Your task to perform on an android device: snooze an email in the gmail app Image 0: 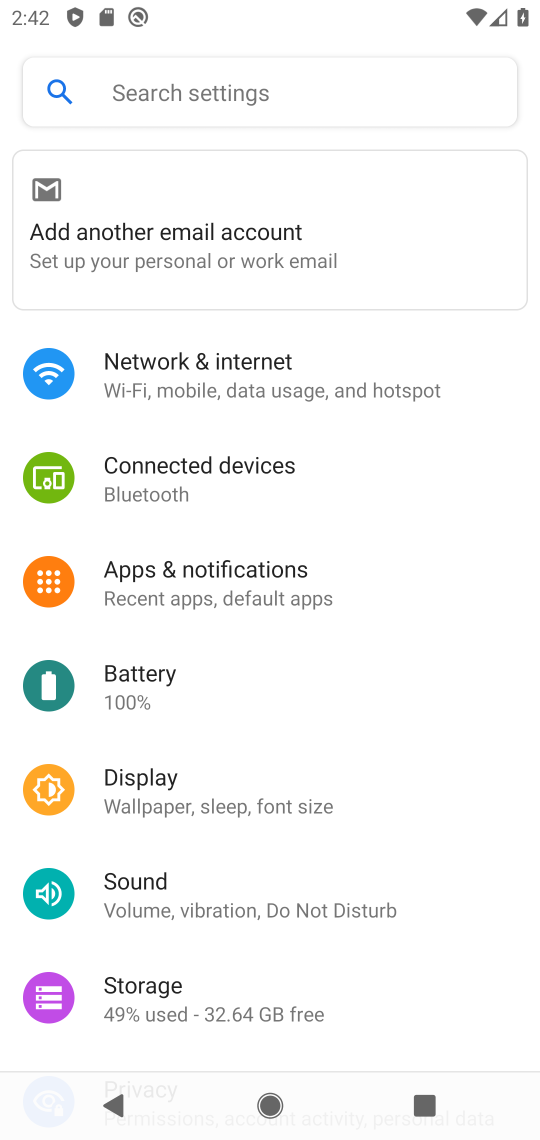
Step 0: press home button
Your task to perform on an android device: snooze an email in the gmail app Image 1: 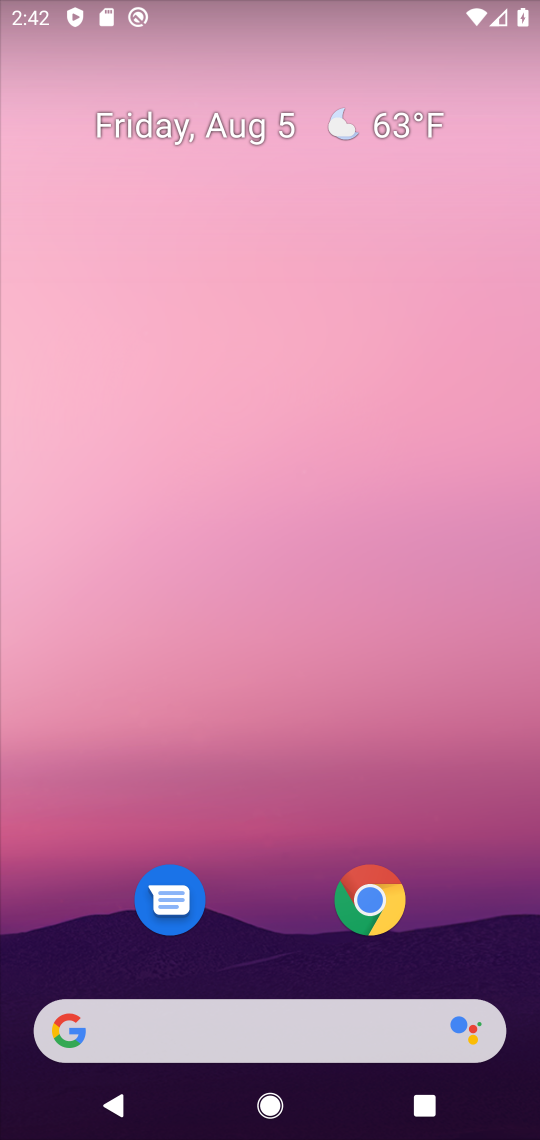
Step 1: drag from (287, 972) to (328, 93)
Your task to perform on an android device: snooze an email in the gmail app Image 2: 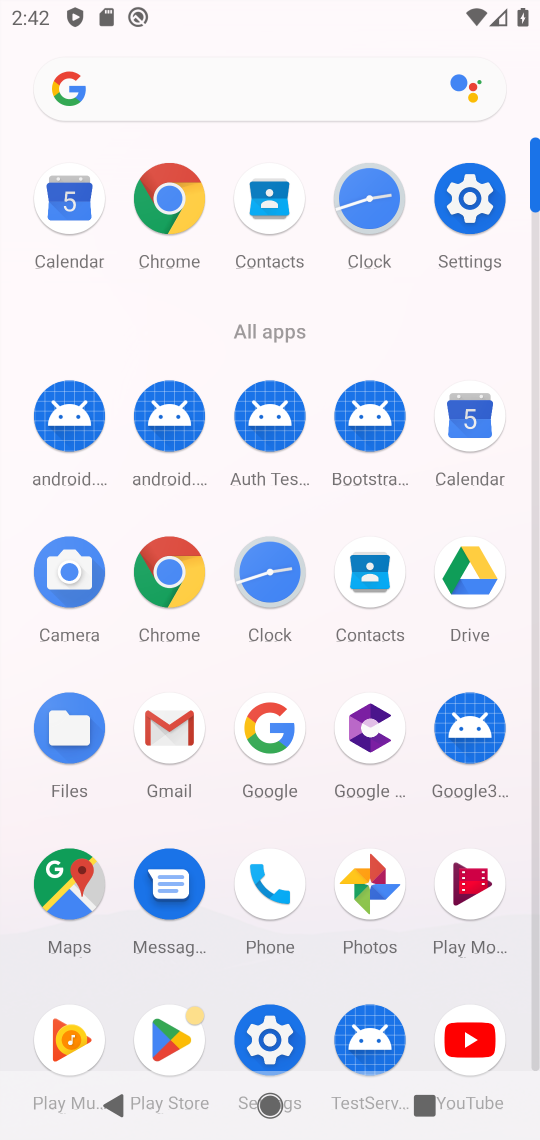
Step 2: click (174, 734)
Your task to perform on an android device: snooze an email in the gmail app Image 3: 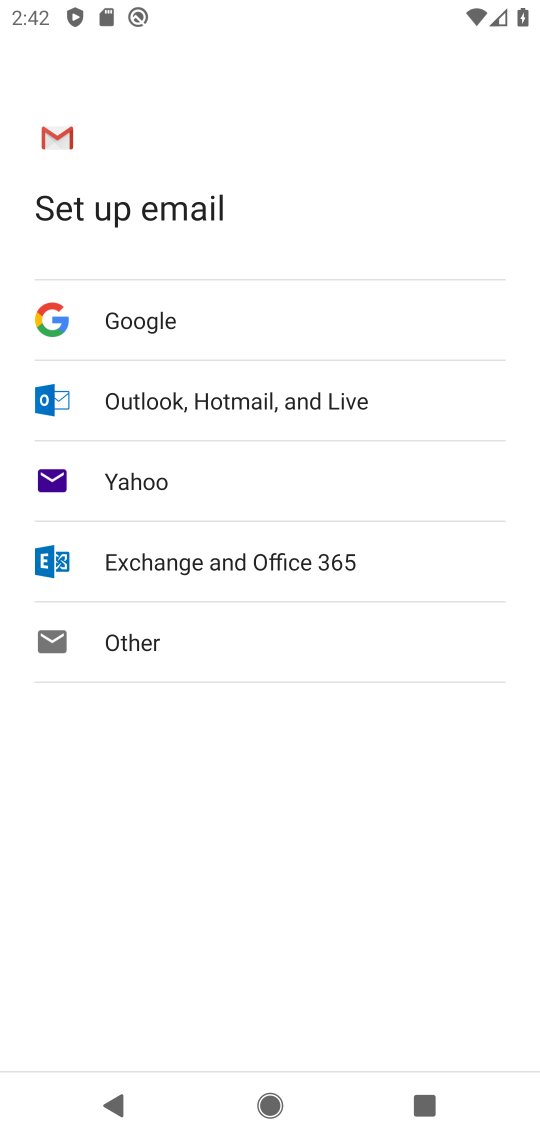
Step 3: task complete